Your task to perform on an android device: open app "Adobe Acrobat Reader" (install if not already installed) and enter user name: "nondescriptly@inbox.com" and password: "negating" Image 0: 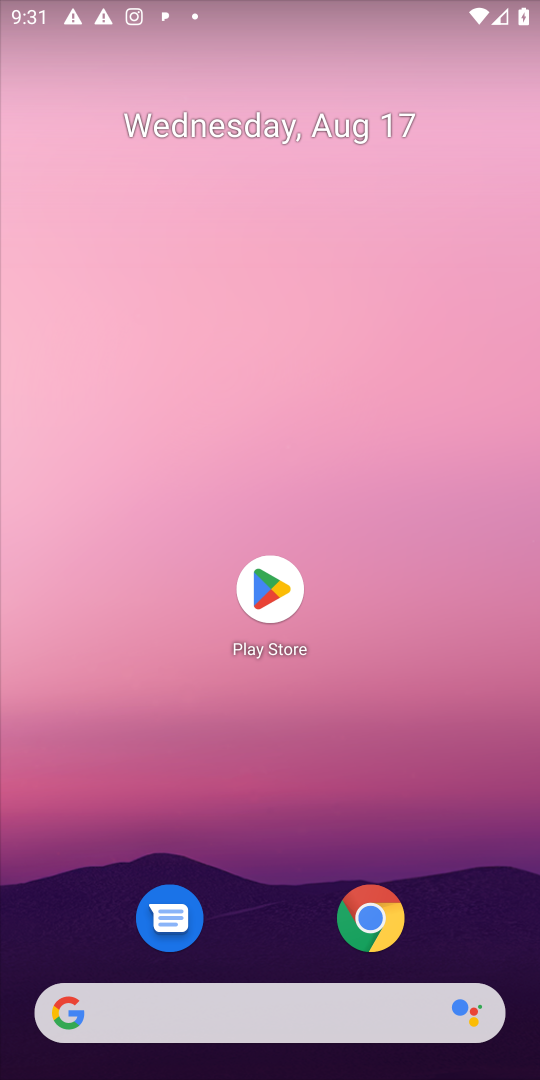
Step 0: click (275, 575)
Your task to perform on an android device: open app "Adobe Acrobat Reader" (install if not already installed) and enter user name: "nondescriptly@inbox.com" and password: "negating" Image 1: 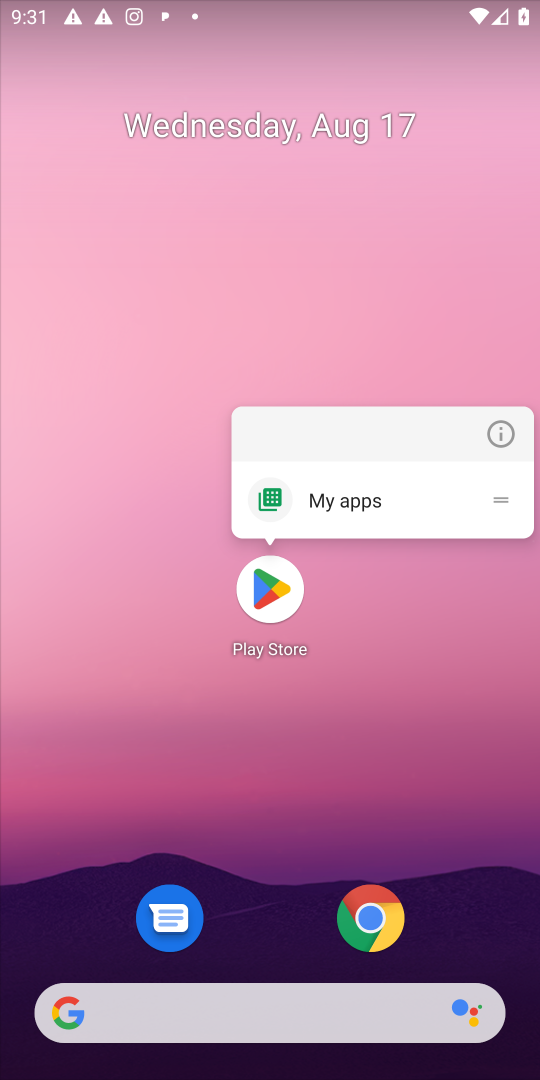
Step 1: click (269, 574)
Your task to perform on an android device: open app "Adobe Acrobat Reader" (install if not already installed) and enter user name: "nondescriptly@inbox.com" and password: "negating" Image 2: 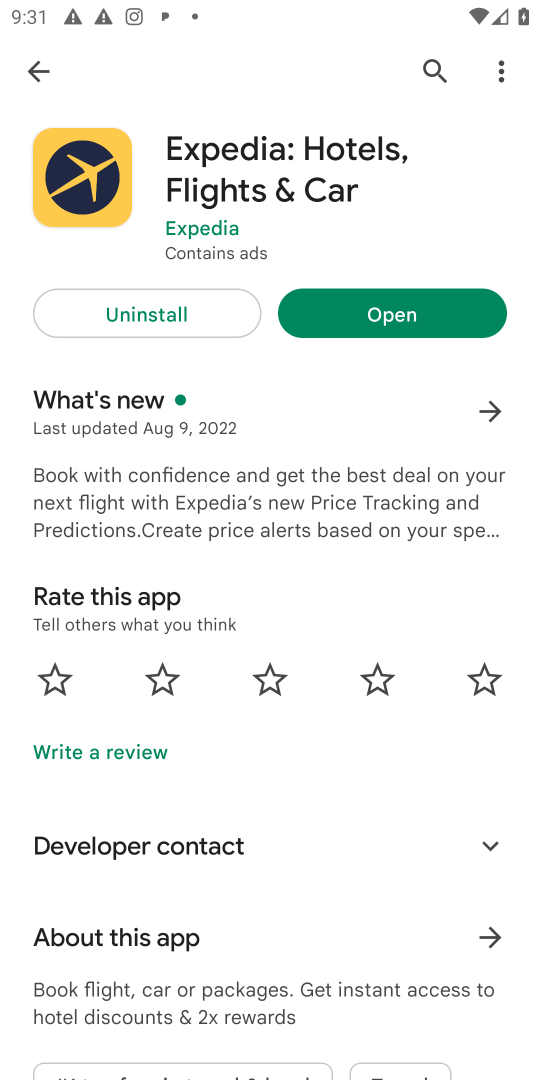
Step 2: click (426, 74)
Your task to perform on an android device: open app "Adobe Acrobat Reader" (install if not already installed) and enter user name: "nondescriptly@inbox.com" and password: "negating" Image 3: 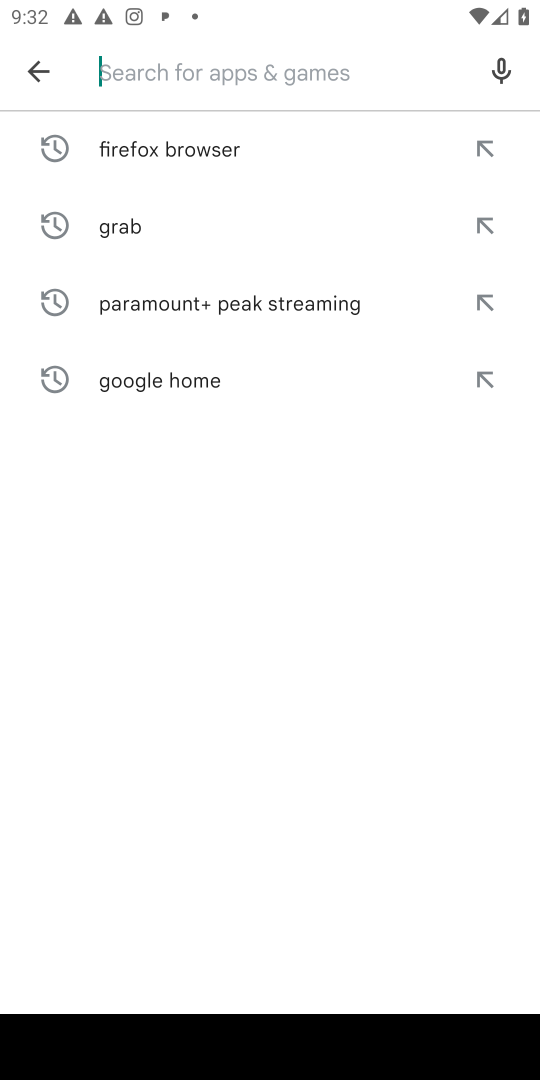
Step 3: type "Adobe Acrobat Reader"
Your task to perform on an android device: open app "Adobe Acrobat Reader" (install if not already installed) and enter user name: "nondescriptly@inbox.com" and password: "negating" Image 4: 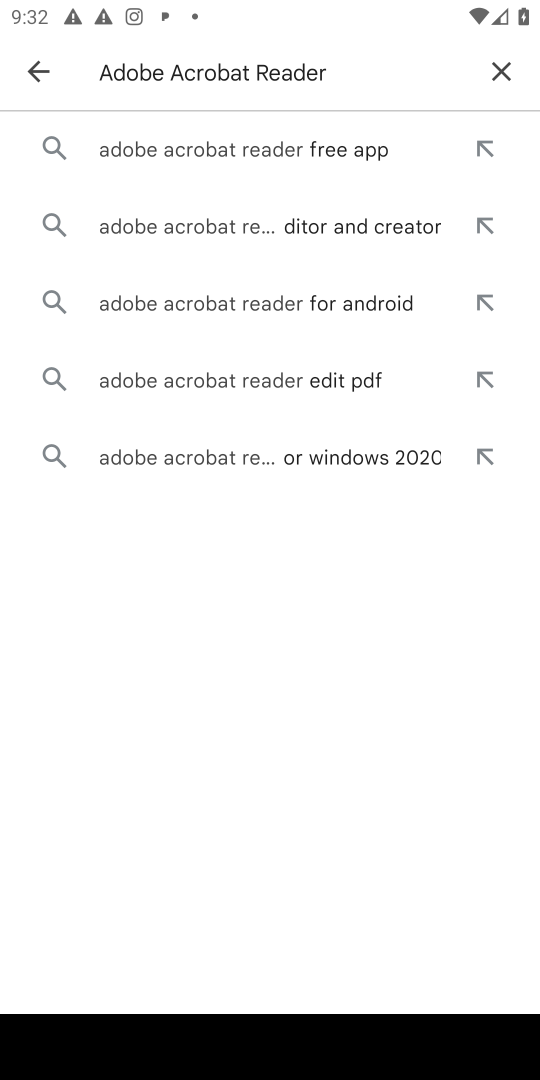
Step 4: click (190, 146)
Your task to perform on an android device: open app "Adobe Acrobat Reader" (install if not already installed) and enter user name: "nondescriptly@inbox.com" and password: "negating" Image 5: 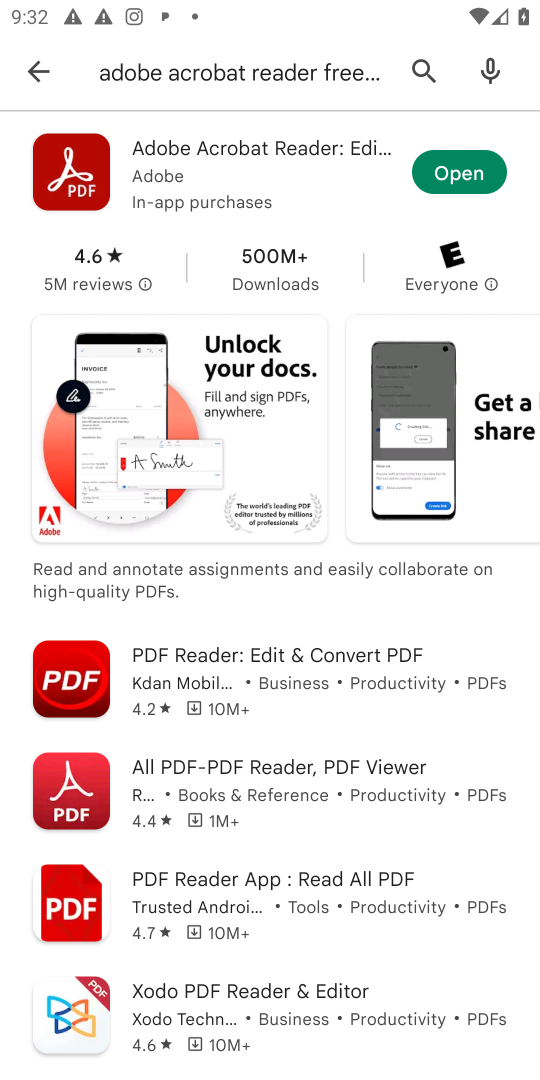
Step 5: click (477, 174)
Your task to perform on an android device: open app "Adobe Acrobat Reader" (install if not already installed) and enter user name: "nondescriptly@inbox.com" and password: "negating" Image 6: 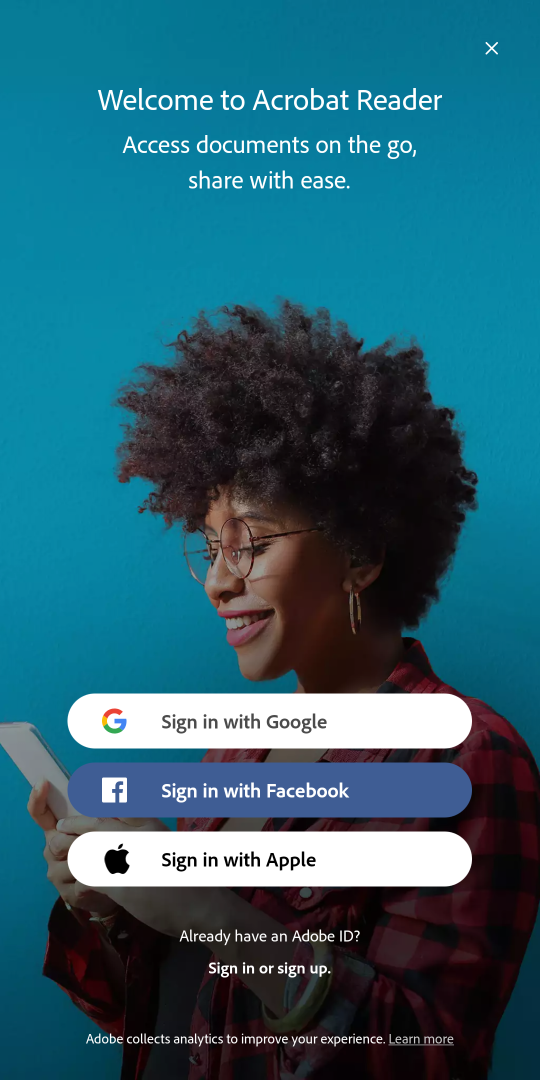
Step 6: click (241, 969)
Your task to perform on an android device: open app "Adobe Acrobat Reader" (install if not already installed) and enter user name: "nondescriptly@inbox.com" and password: "negating" Image 7: 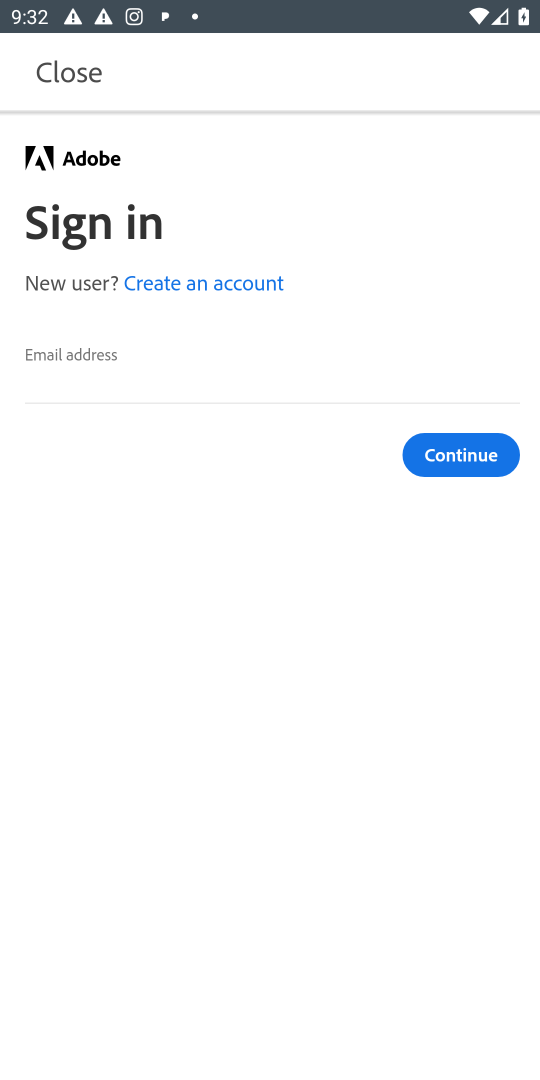
Step 7: click (67, 366)
Your task to perform on an android device: open app "Adobe Acrobat Reader" (install if not already installed) and enter user name: "nondescriptly@inbox.com" and password: "negating" Image 8: 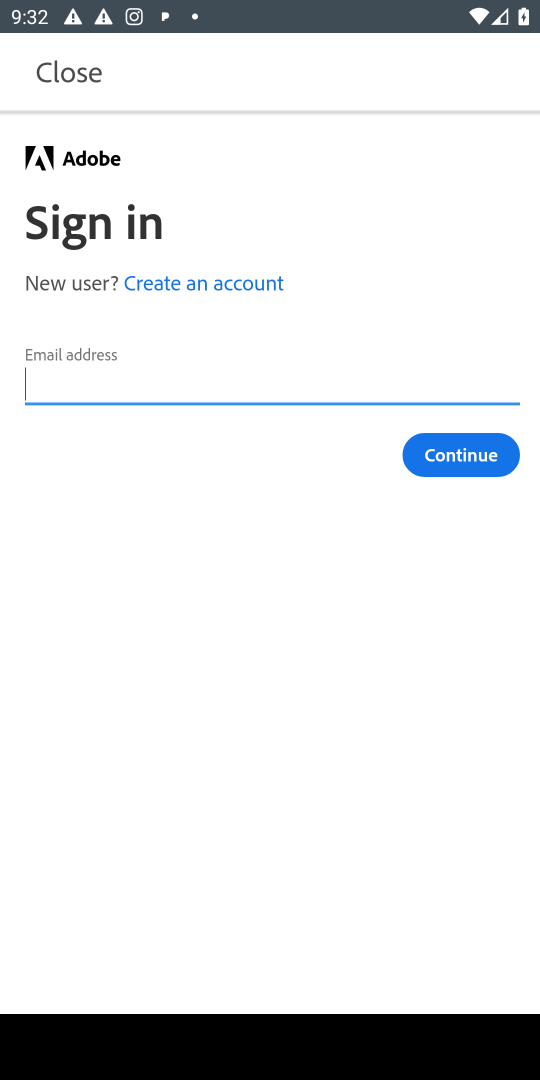
Step 8: type "nondescriptly@inbox.com"
Your task to perform on an android device: open app "Adobe Acrobat Reader" (install if not already installed) and enter user name: "nondescriptly@inbox.com" and password: "negating" Image 9: 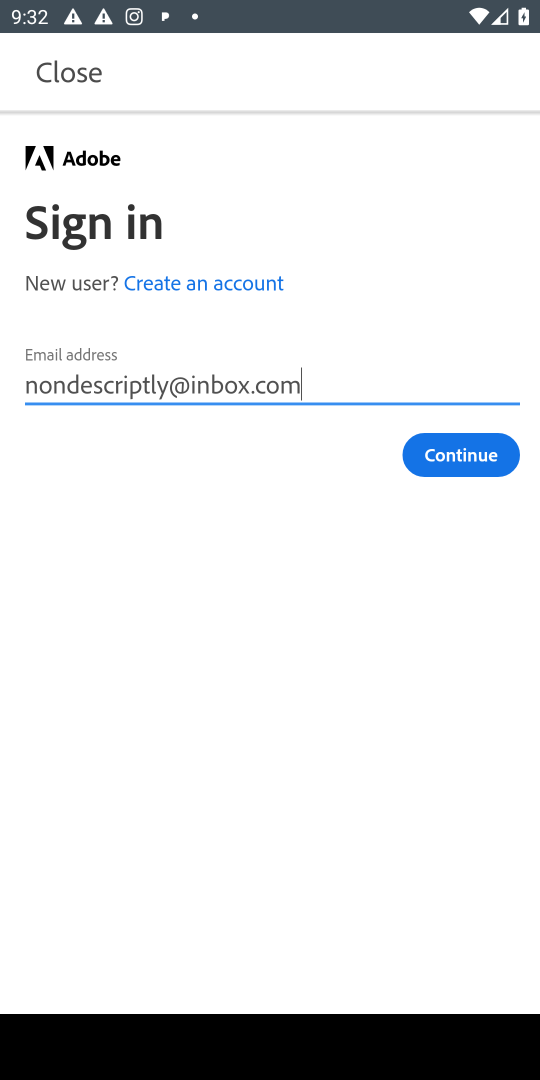
Step 9: click (474, 453)
Your task to perform on an android device: open app "Adobe Acrobat Reader" (install if not already installed) and enter user name: "nondescriptly@inbox.com" and password: "negating" Image 10: 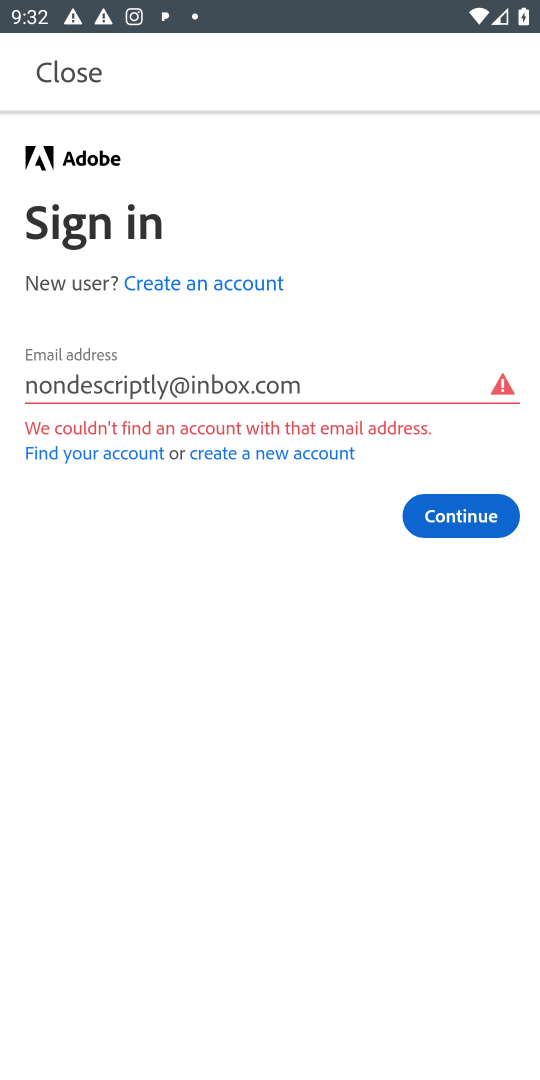
Step 10: task complete